Your task to perform on an android device: Add usb-a to the cart on target.com Image 0: 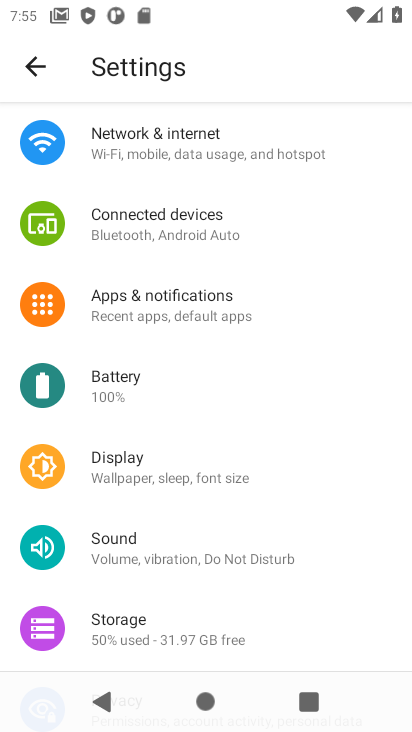
Step 0: press home button
Your task to perform on an android device: Add usb-a to the cart on target.com Image 1: 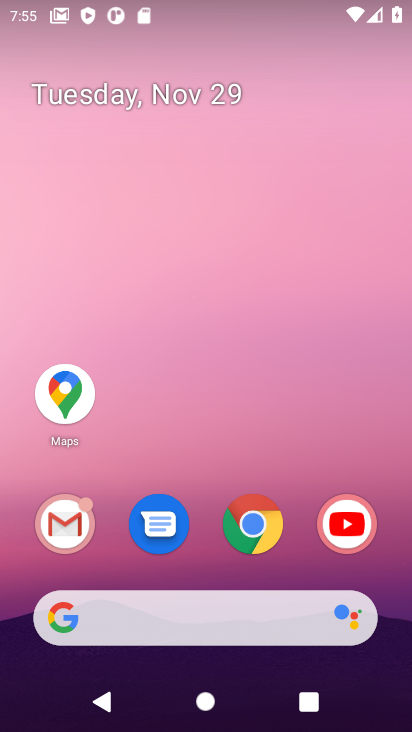
Step 1: click (253, 517)
Your task to perform on an android device: Add usb-a to the cart on target.com Image 2: 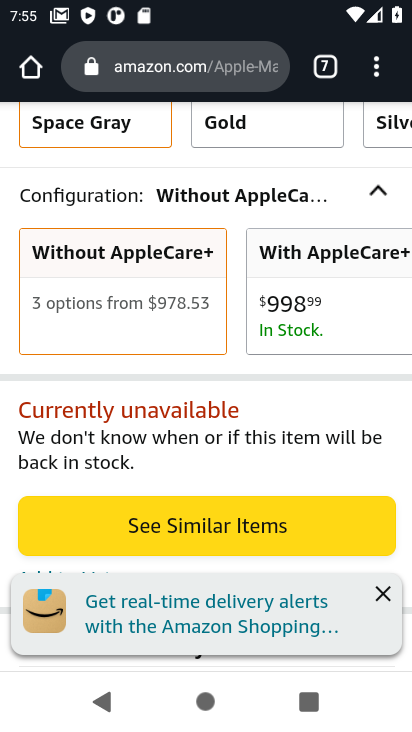
Step 2: click (170, 67)
Your task to perform on an android device: Add usb-a to the cart on target.com Image 3: 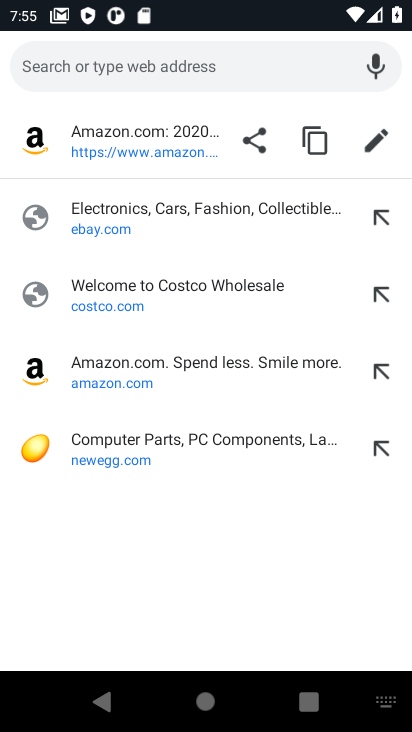
Step 3: type "target.com"
Your task to perform on an android device: Add usb-a to the cart on target.com Image 4: 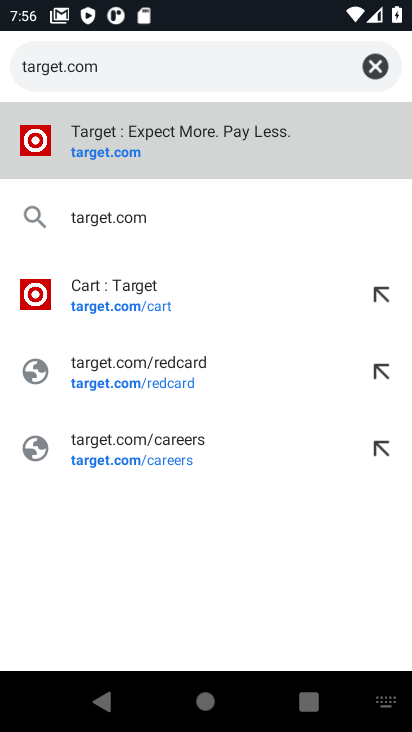
Step 4: click (106, 156)
Your task to perform on an android device: Add usb-a to the cart on target.com Image 5: 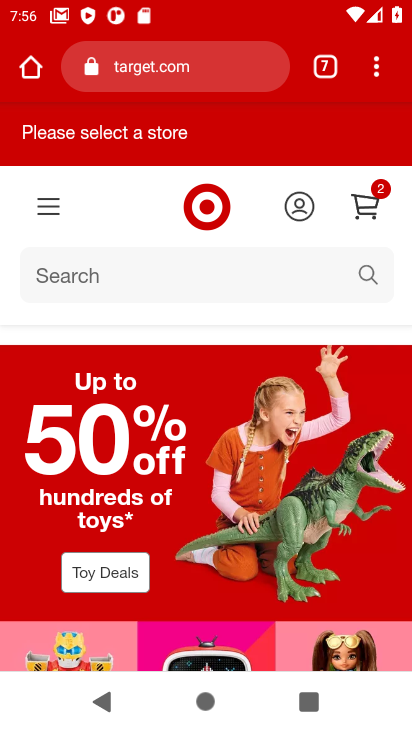
Step 5: click (47, 280)
Your task to perform on an android device: Add usb-a to the cart on target.com Image 6: 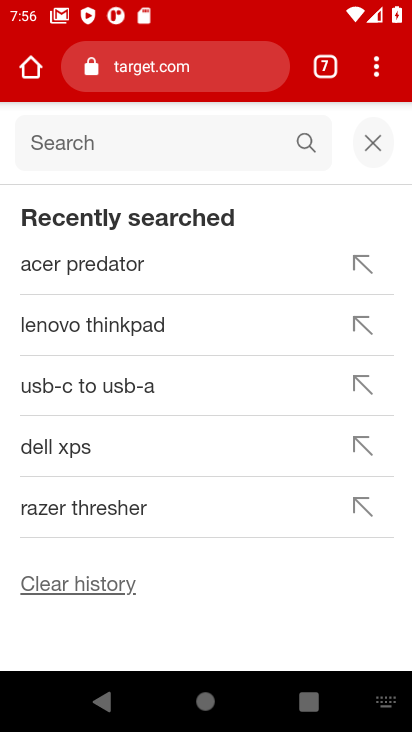
Step 6: type "usb-a"
Your task to perform on an android device: Add usb-a to the cart on target.com Image 7: 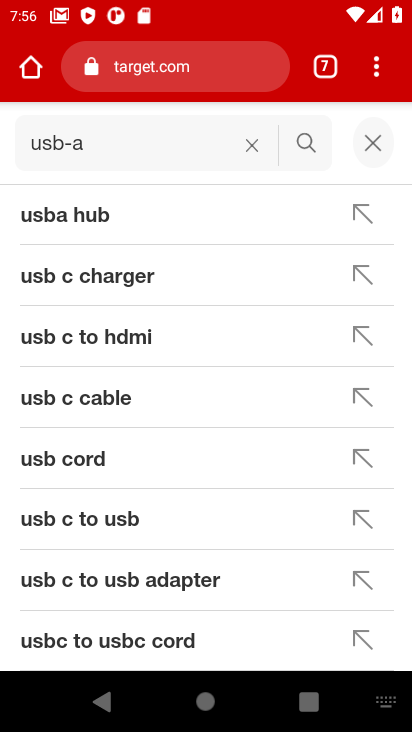
Step 7: click (307, 139)
Your task to perform on an android device: Add usb-a to the cart on target.com Image 8: 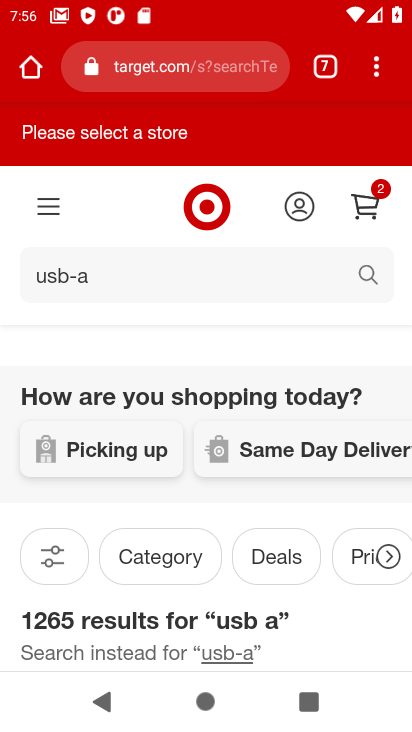
Step 8: drag from (196, 497) to (164, 179)
Your task to perform on an android device: Add usb-a to the cart on target.com Image 9: 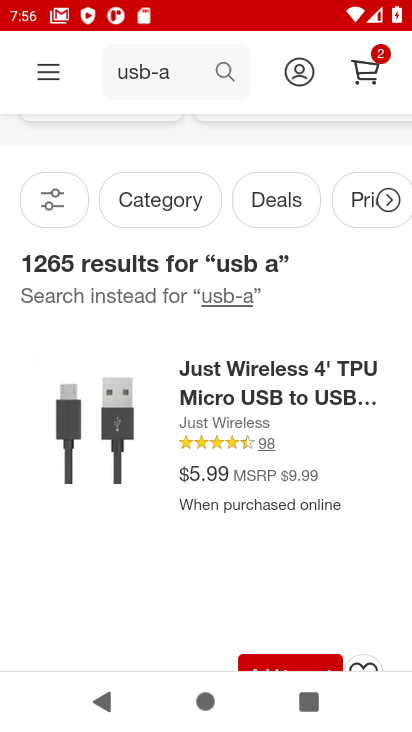
Step 9: drag from (135, 500) to (129, 344)
Your task to perform on an android device: Add usb-a to the cart on target.com Image 10: 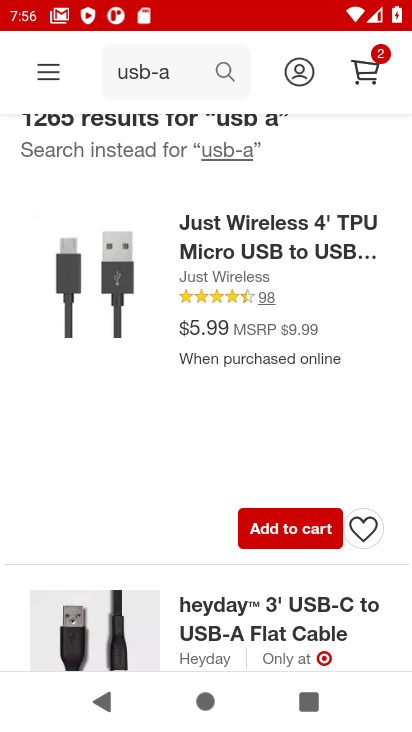
Step 10: drag from (105, 485) to (110, 301)
Your task to perform on an android device: Add usb-a to the cart on target.com Image 11: 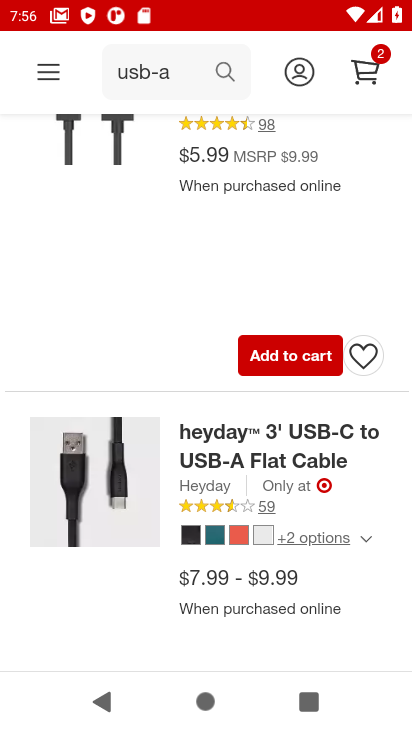
Step 11: click (229, 454)
Your task to perform on an android device: Add usb-a to the cart on target.com Image 12: 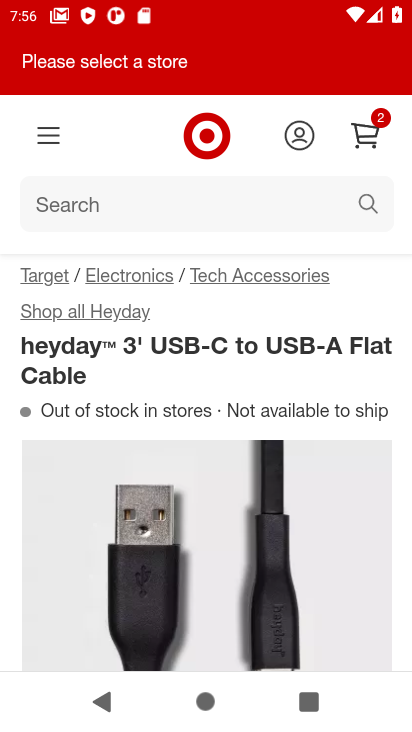
Step 12: drag from (210, 583) to (204, 262)
Your task to perform on an android device: Add usb-a to the cart on target.com Image 13: 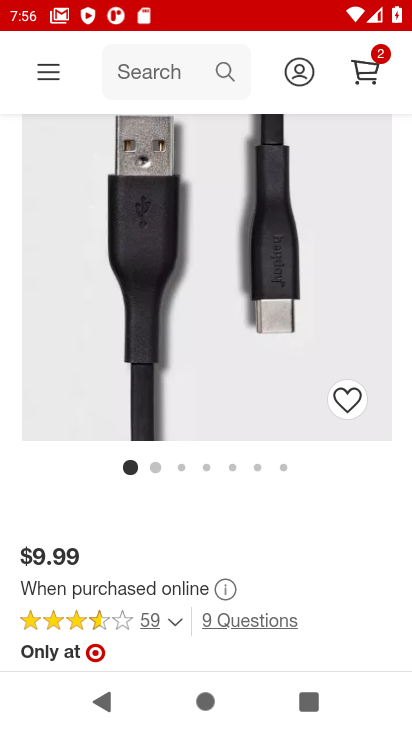
Step 13: drag from (179, 550) to (185, 234)
Your task to perform on an android device: Add usb-a to the cart on target.com Image 14: 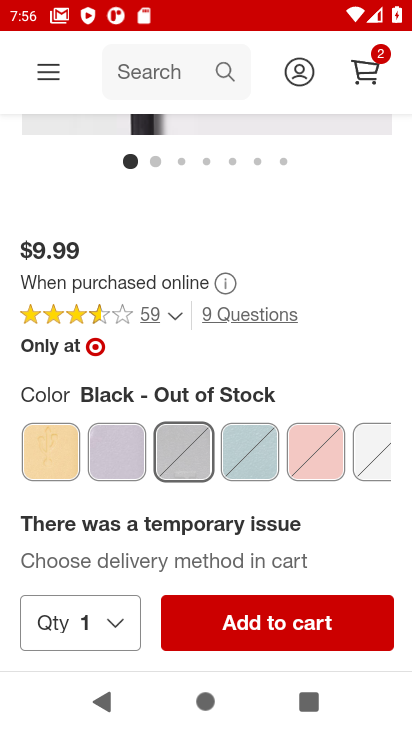
Step 14: drag from (169, 544) to (169, 362)
Your task to perform on an android device: Add usb-a to the cart on target.com Image 15: 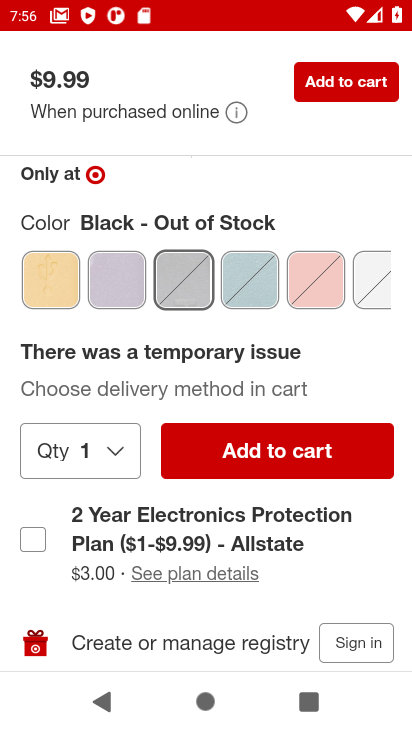
Step 15: click (261, 450)
Your task to perform on an android device: Add usb-a to the cart on target.com Image 16: 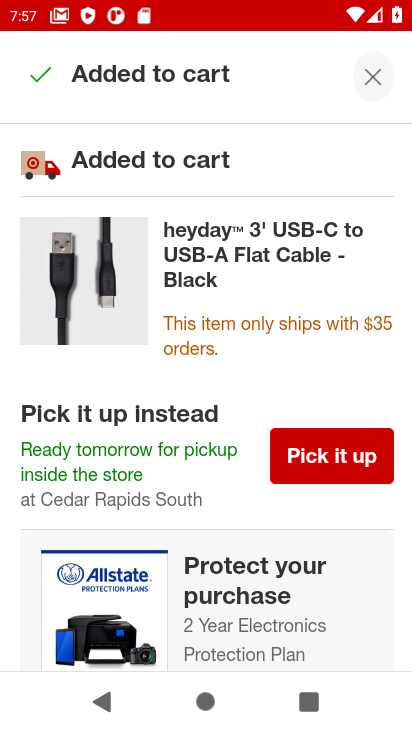
Step 16: task complete